Your task to perform on an android device: Do I have any events today? Image 0: 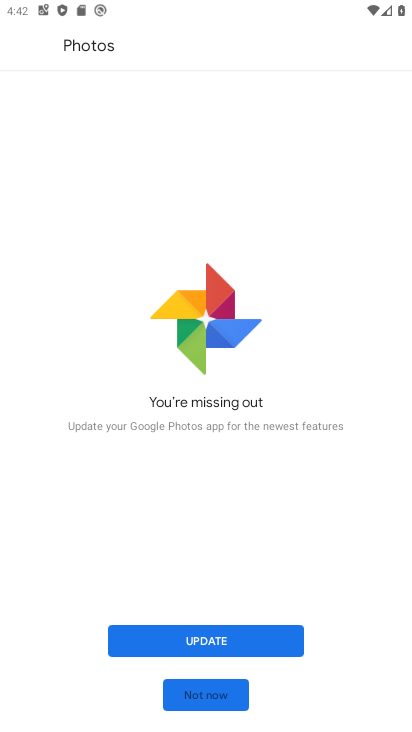
Step 0: press back button
Your task to perform on an android device: Do I have any events today? Image 1: 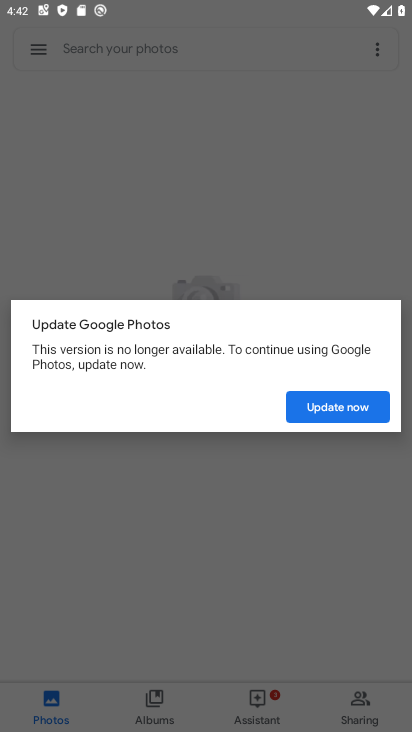
Step 1: press home button
Your task to perform on an android device: Do I have any events today? Image 2: 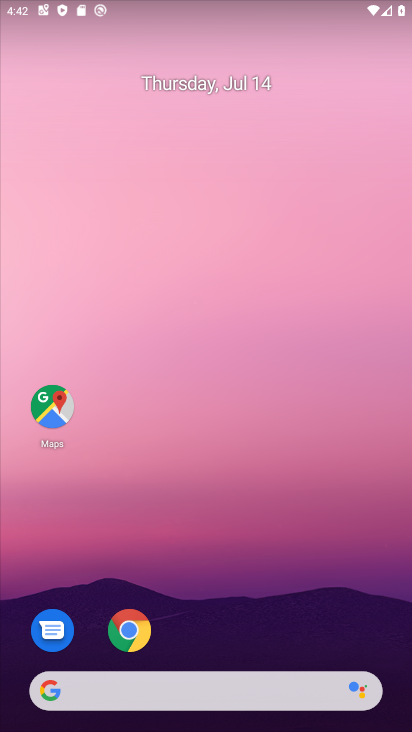
Step 2: drag from (291, 401) to (329, 26)
Your task to perform on an android device: Do I have any events today? Image 3: 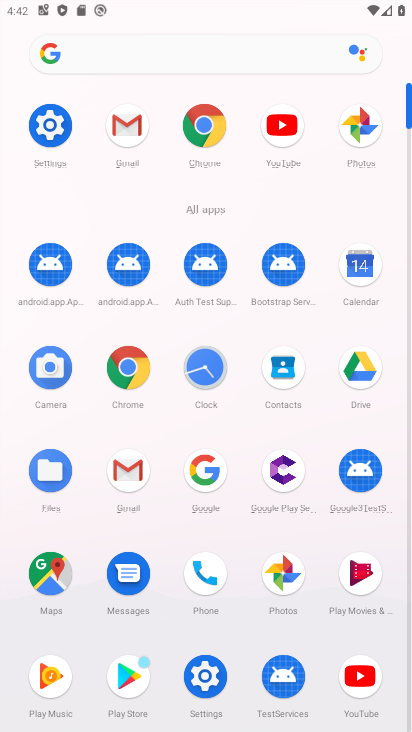
Step 3: click (360, 269)
Your task to perform on an android device: Do I have any events today? Image 4: 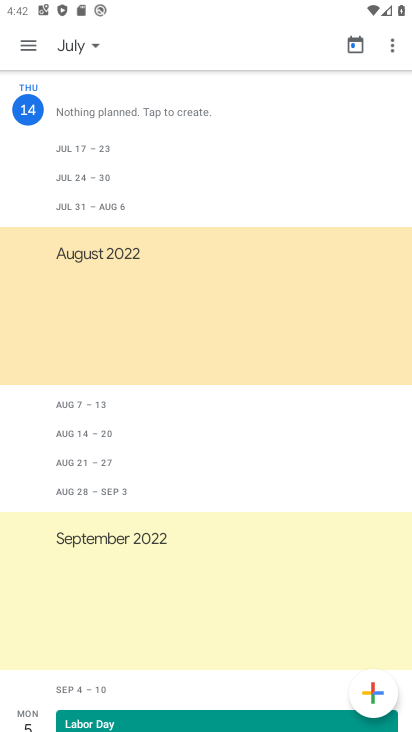
Step 4: task complete